Your task to perform on an android device: What's on my calendar today? Image 0: 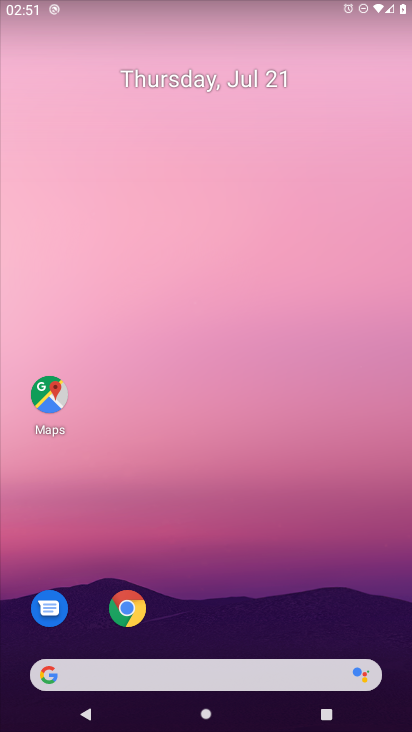
Step 0: press home button
Your task to perform on an android device: What's on my calendar today? Image 1: 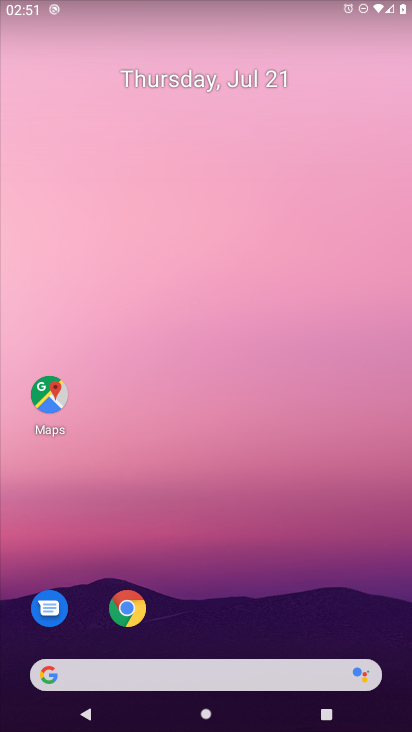
Step 1: drag from (238, 411) to (260, 107)
Your task to perform on an android device: What's on my calendar today? Image 2: 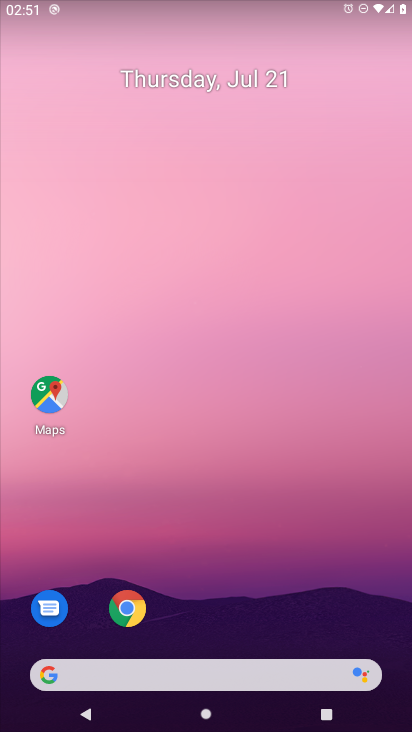
Step 2: drag from (294, 610) to (354, 45)
Your task to perform on an android device: What's on my calendar today? Image 3: 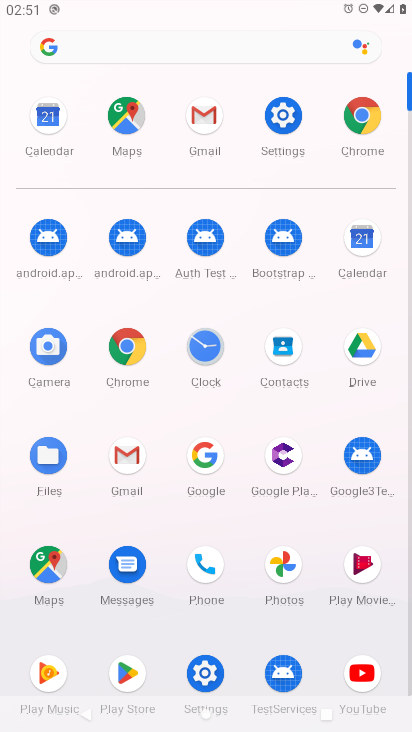
Step 3: click (362, 247)
Your task to perform on an android device: What's on my calendar today? Image 4: 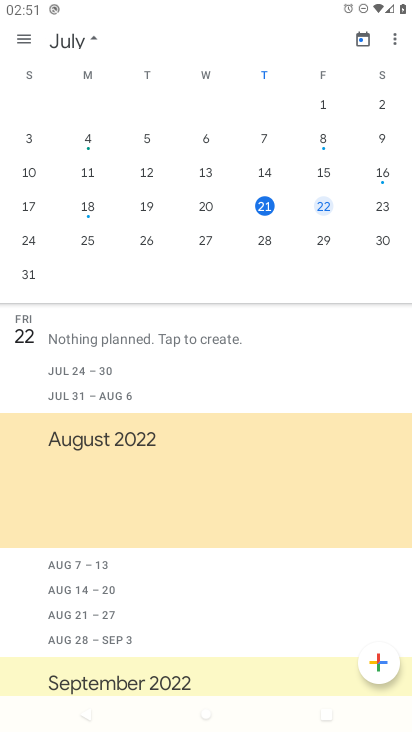
Step 4: click (262, 204)
Your task to perform on an android device: What's on my calendar today? Image 5: 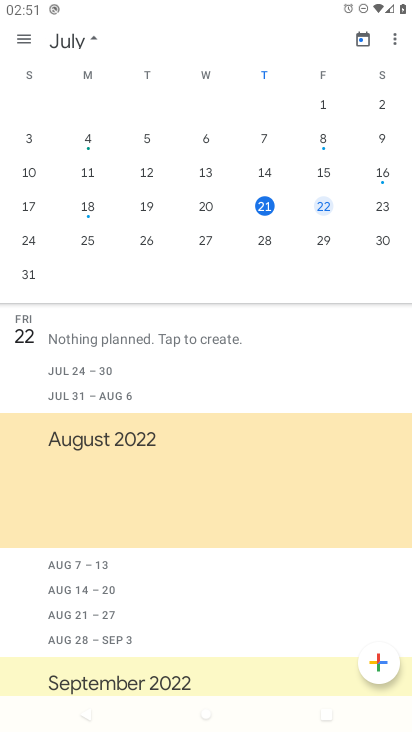
Step 5: click (266, 209)
Your task to perform on an android device: What's on my calendar today? Image 6: 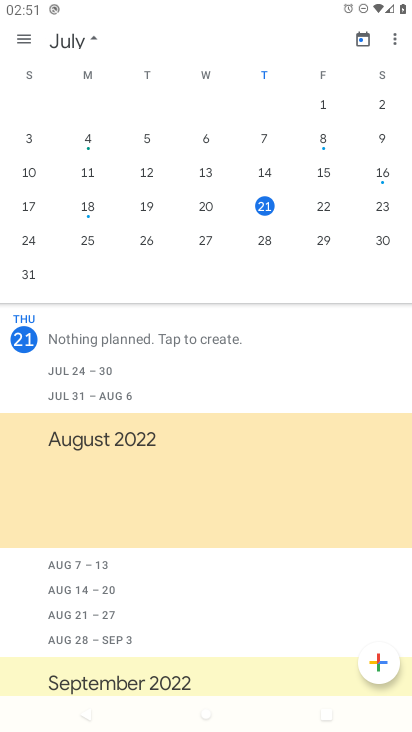
Step 6: task complete